Your task to perform on an android device: Go to settings Image 0: 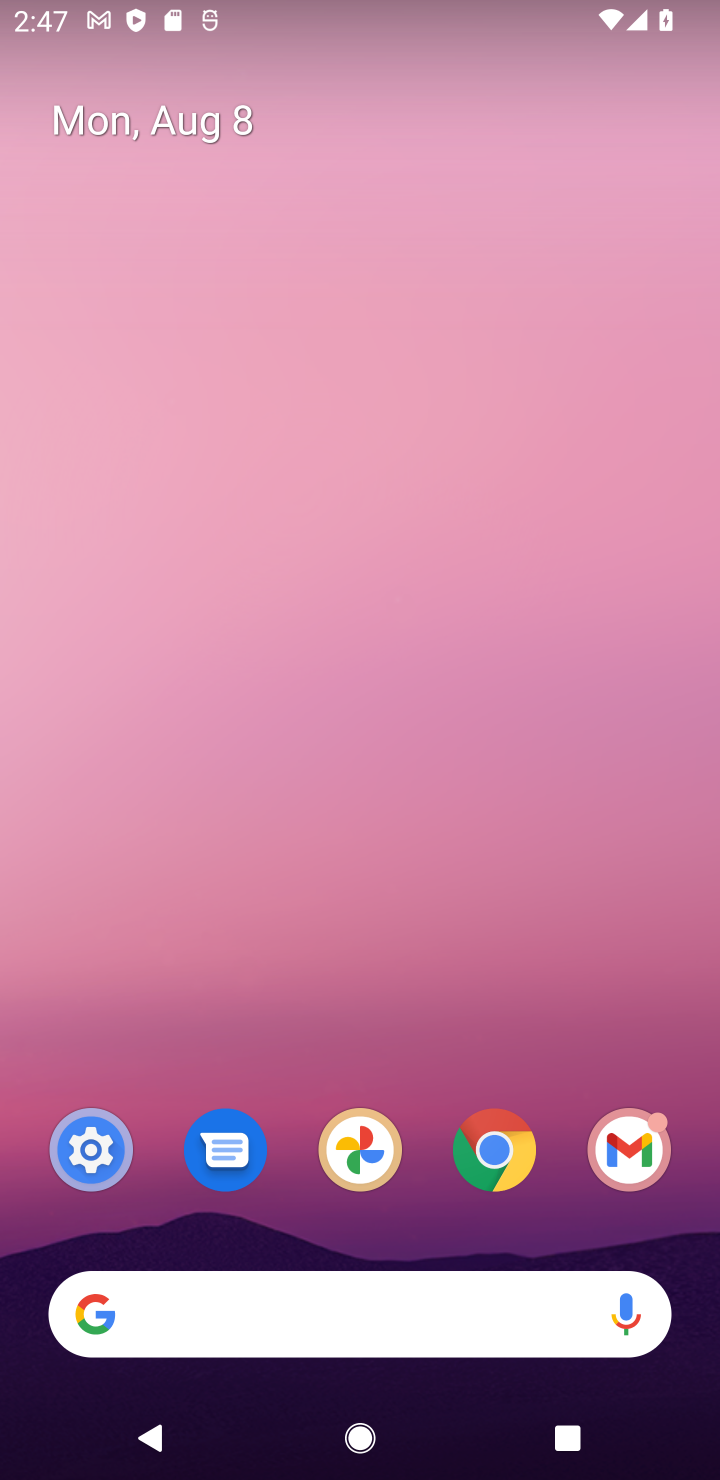
Step 0: click (77, 1178)
Your task to perform on an android device: Go to settings Image 1: 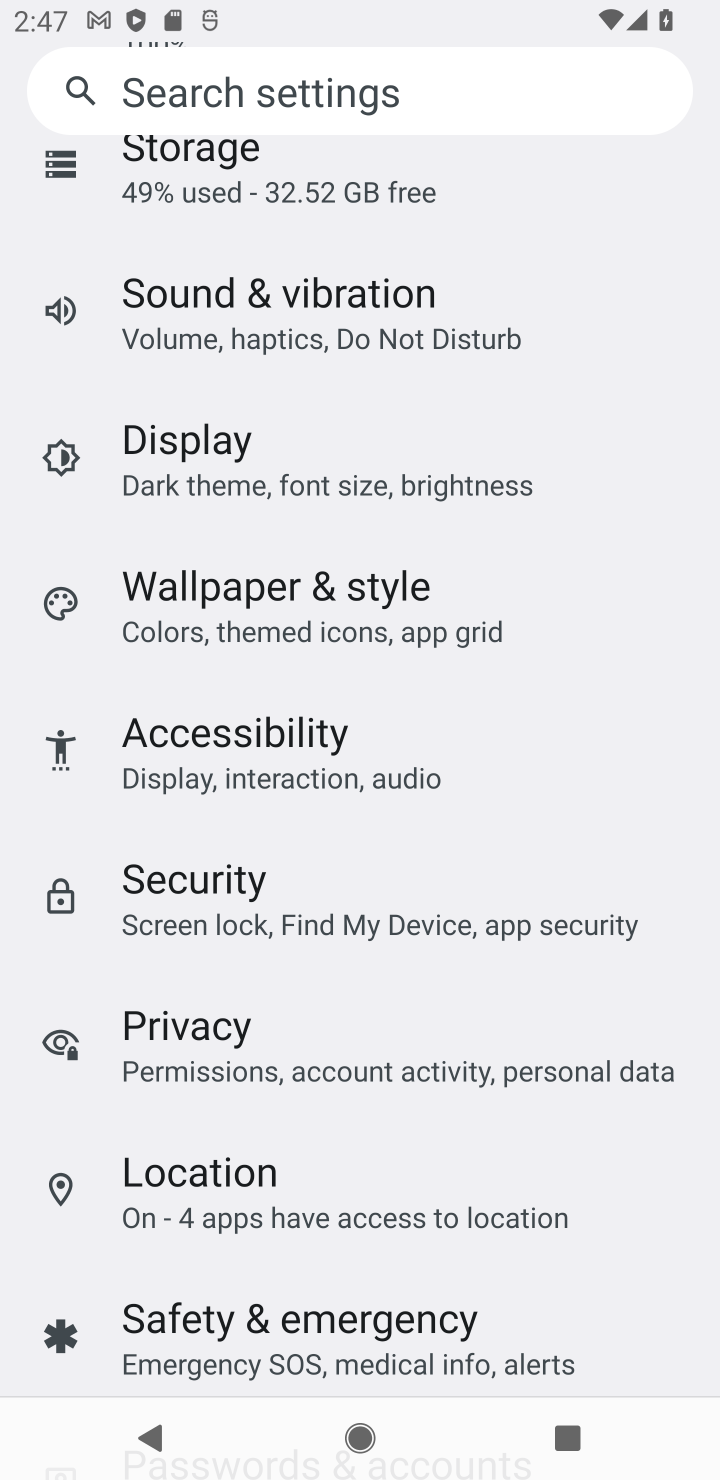
Step 1: task complete